Your task to perform on an android device: Search for the best vacuum on Amazon. Image 0: 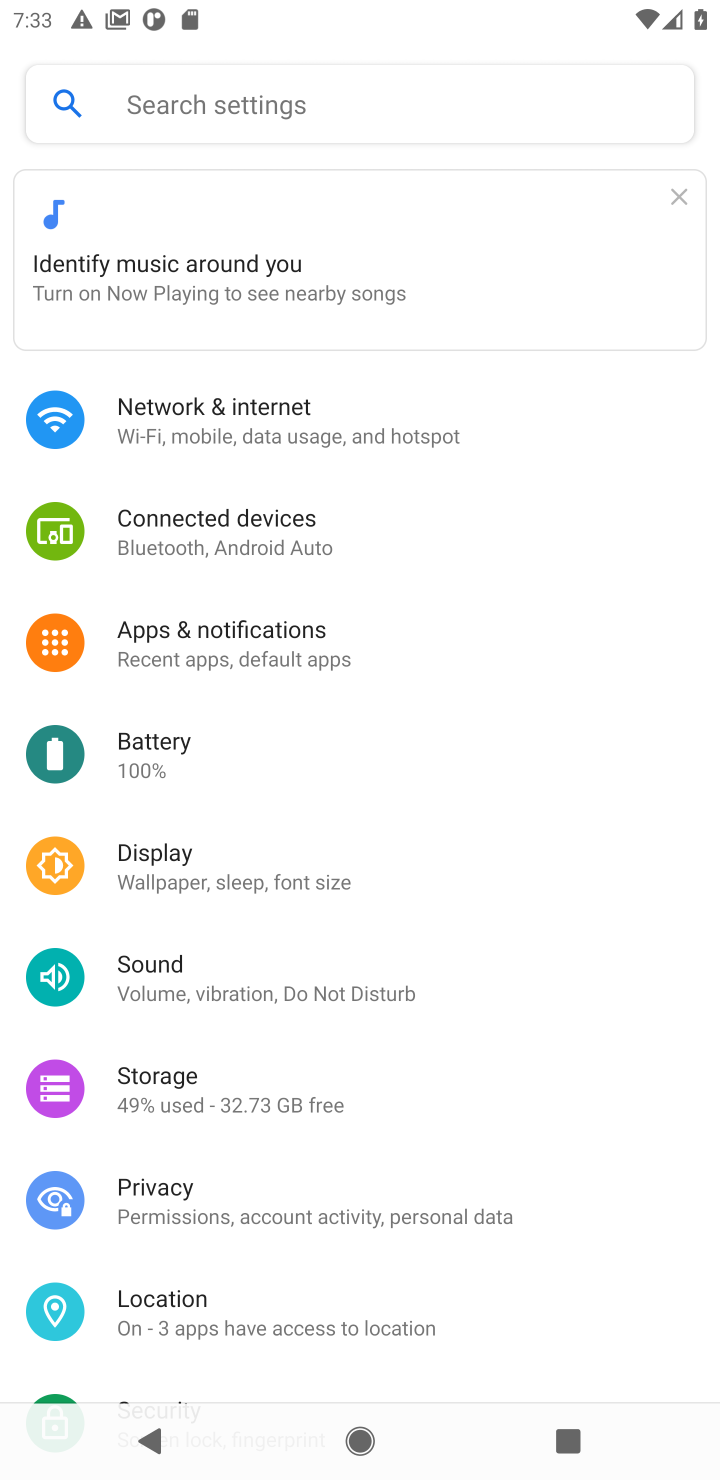
Step 0: press home button
Your task to perform on an android device: Search for the best vacuum on Amazon. Image 1: 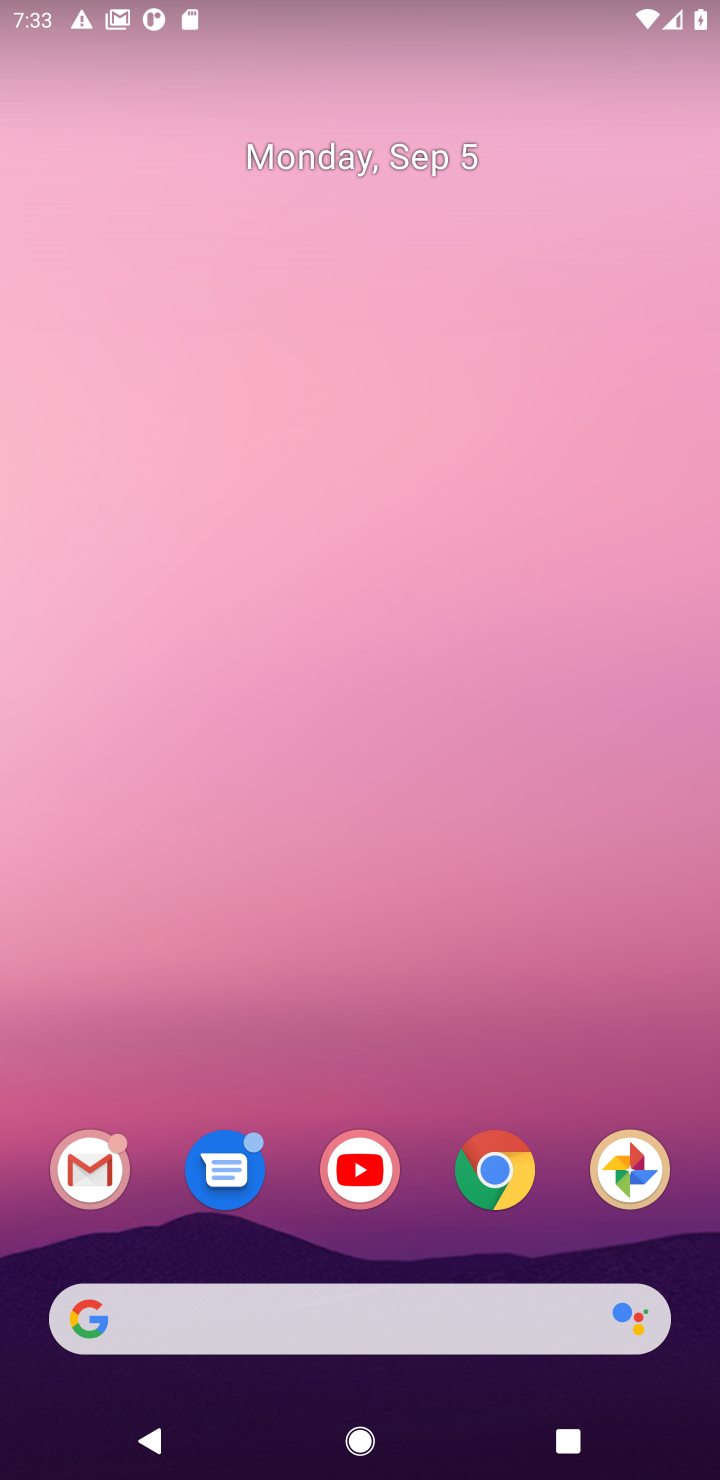
Step 1: click (507, 1195)
Your task to perform on an android device: Search for the best vacuum on Amazon. Image 2: 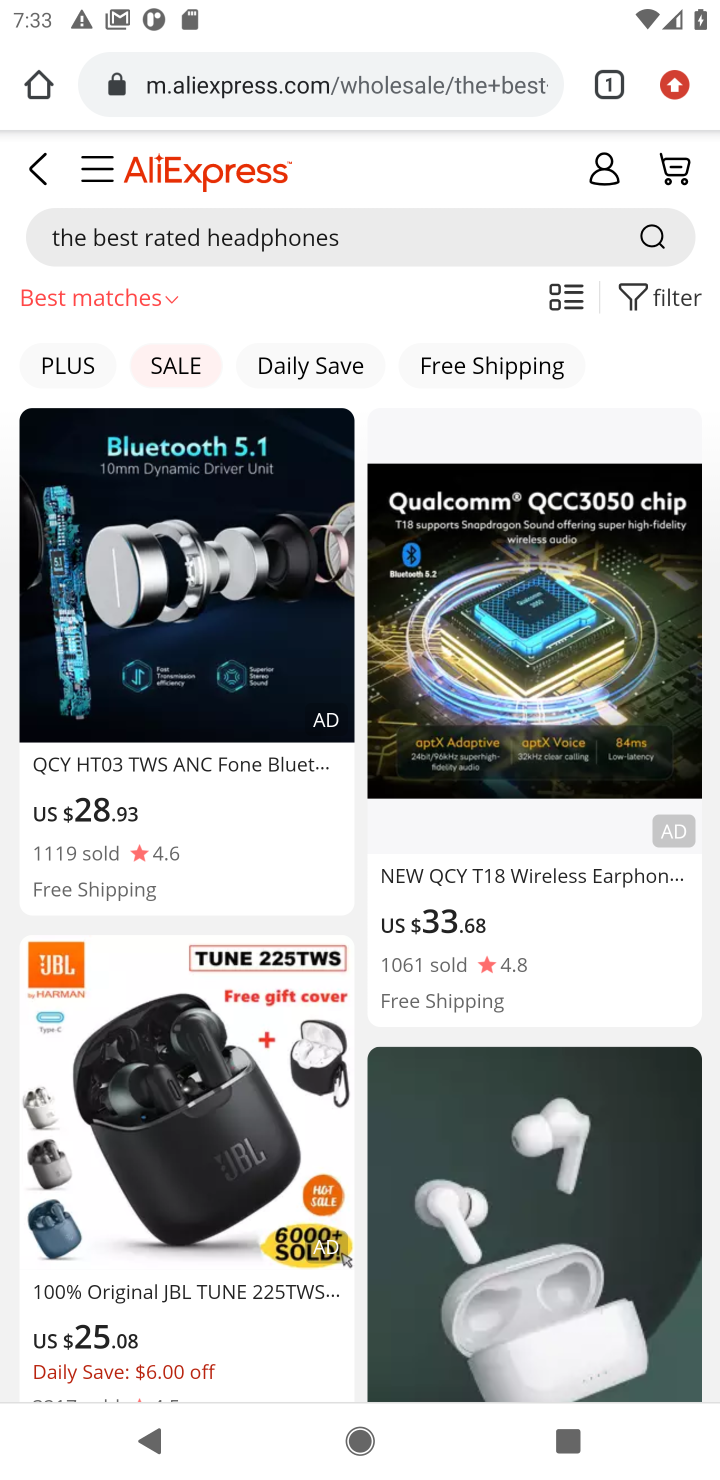
Step 2: click (309, 85)
Your task to perform on an android device: Search for the best vacuum on Amazon. Image 3: 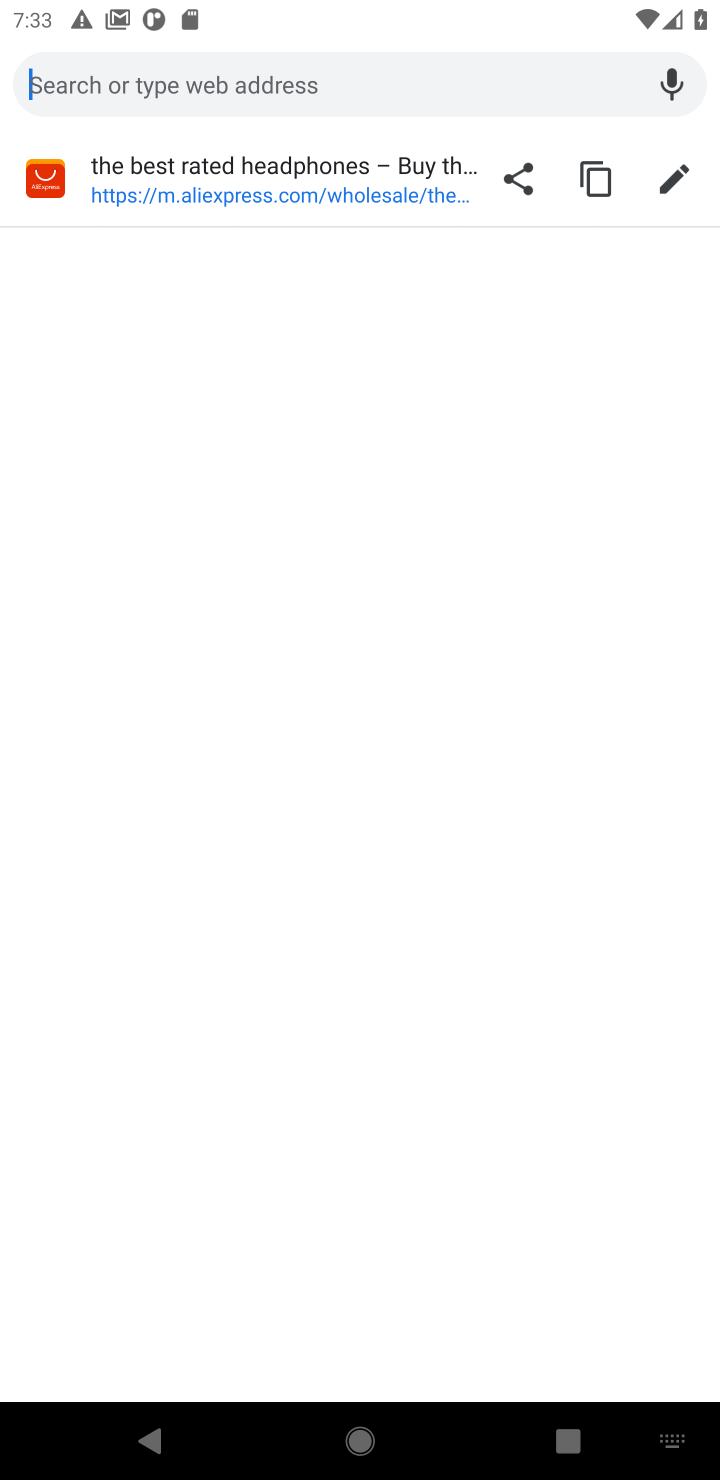
Step 3: type "Amazon"
Your task to perform on an android device: Search for the best vacuum on Amazon. Image 4: 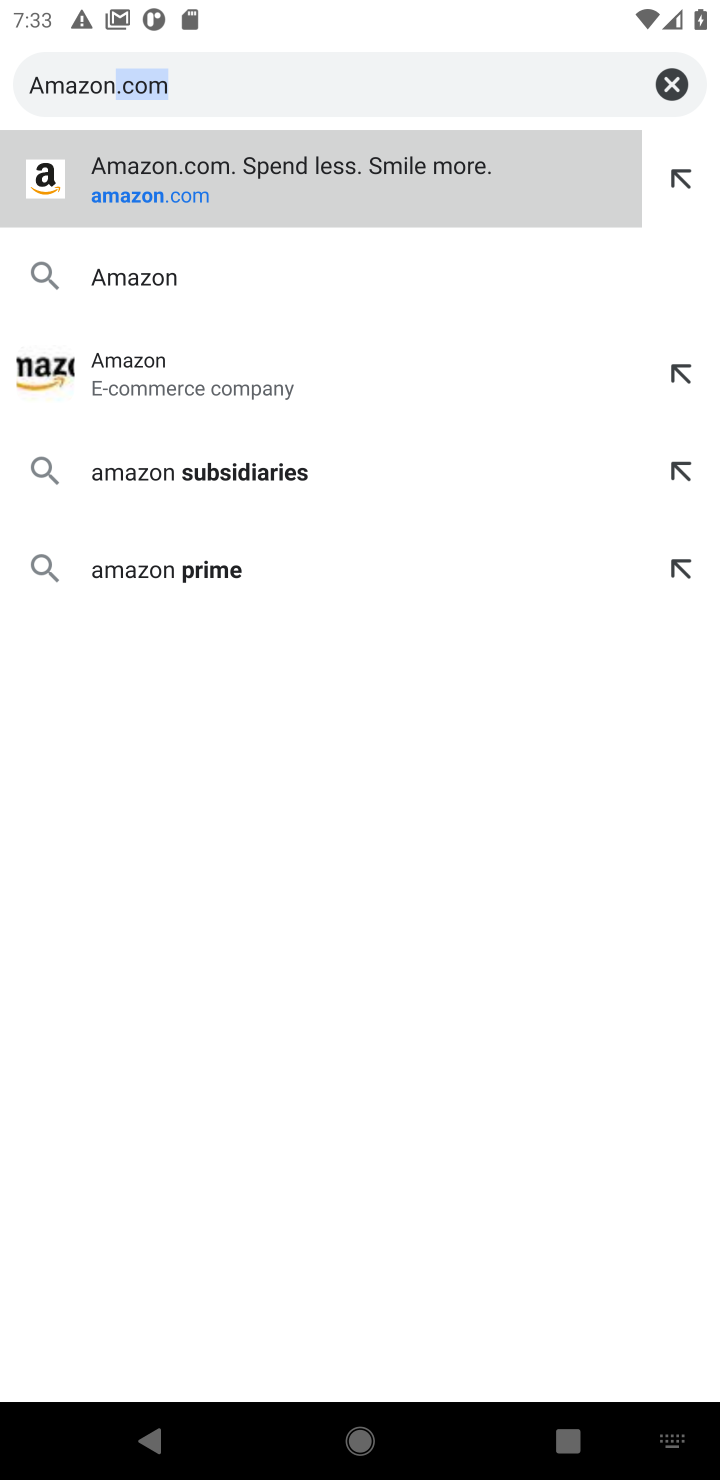
Step 4: click (249, 89)
Your task to perform on an android device: Search for the best vacuum on Amazon. Image 5: 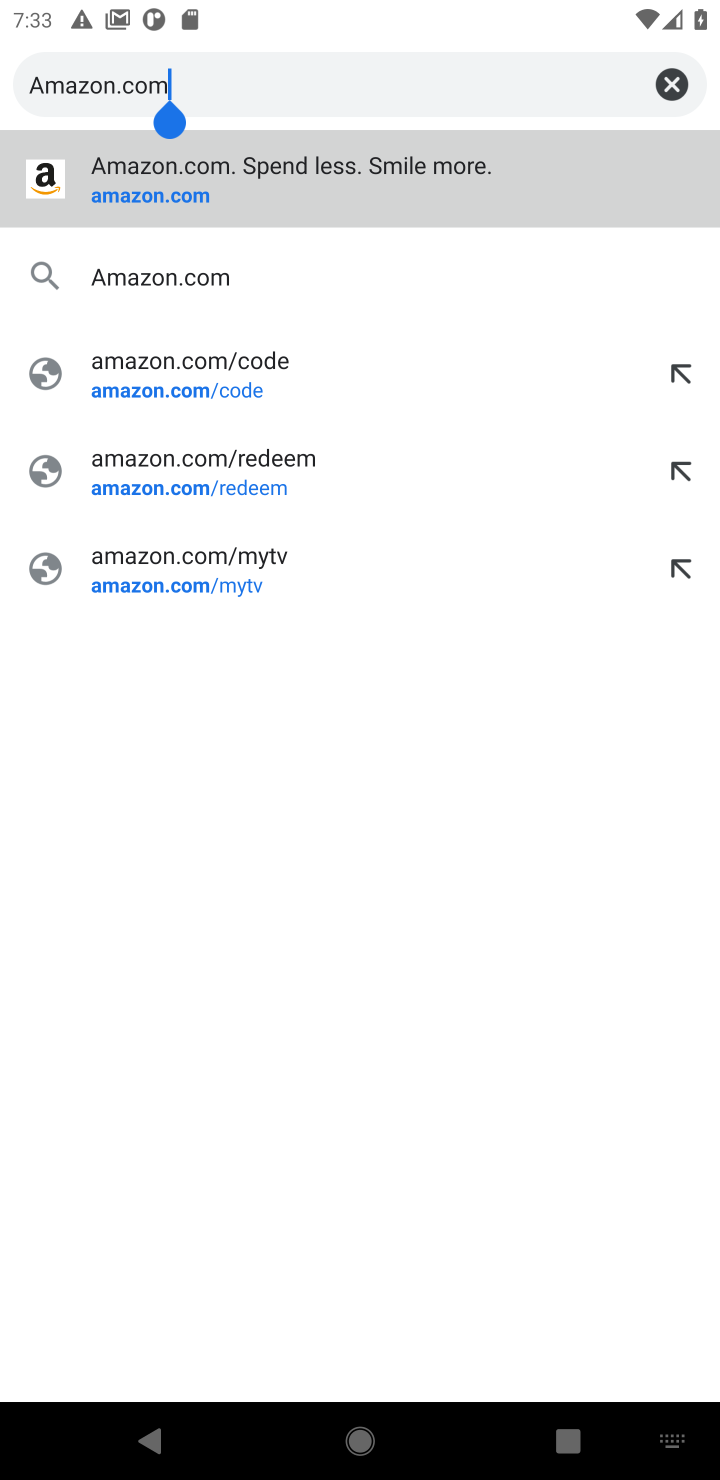
Step 5: click (225, 165)
Your task to perform on an android device: Search for the best vacuum on Amazon. Image 6: 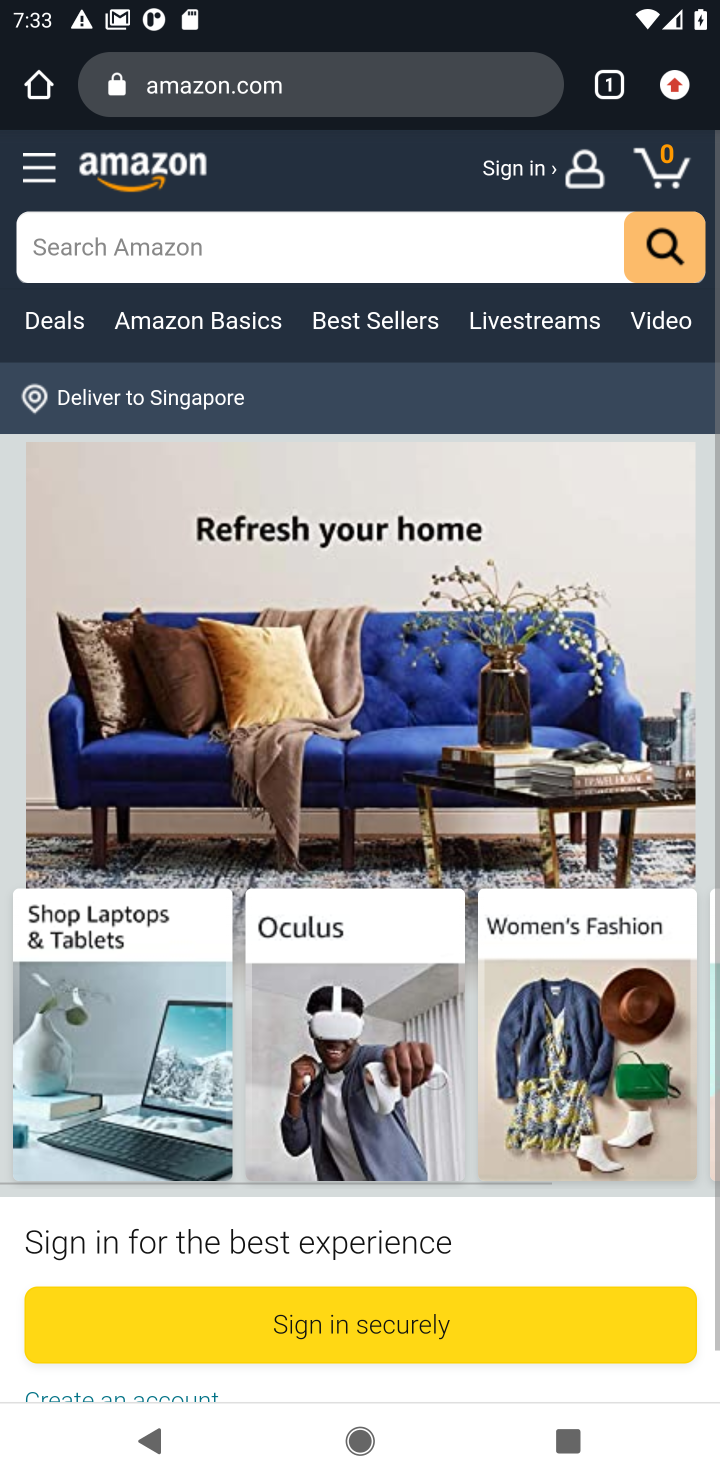
Step 6: click (274, 241)
Your task to perform on an android device: Search for the best vacuum on Amazon. Image 7: 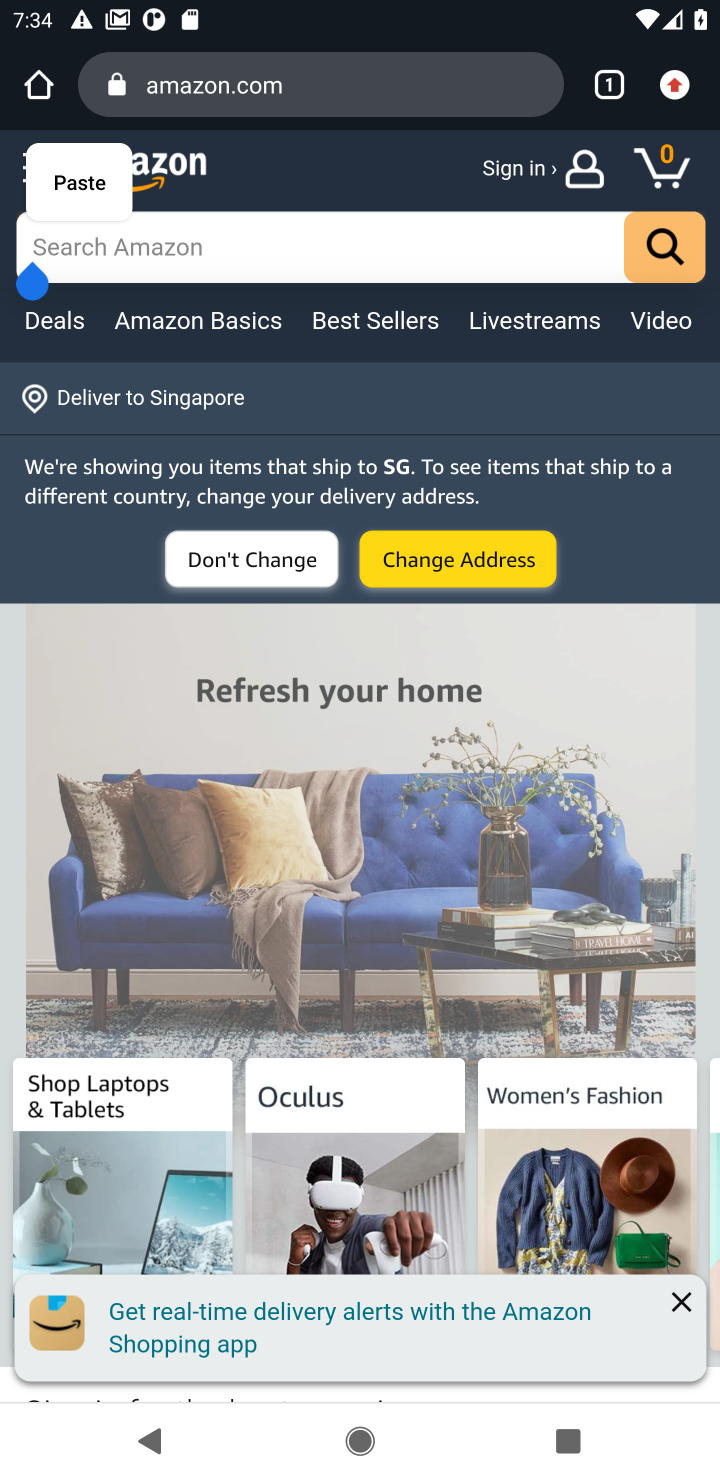
Step 7: type "the best vacuum"
Your task to perform on an android device: Search for the best vacuum on Amazon. Image 8: 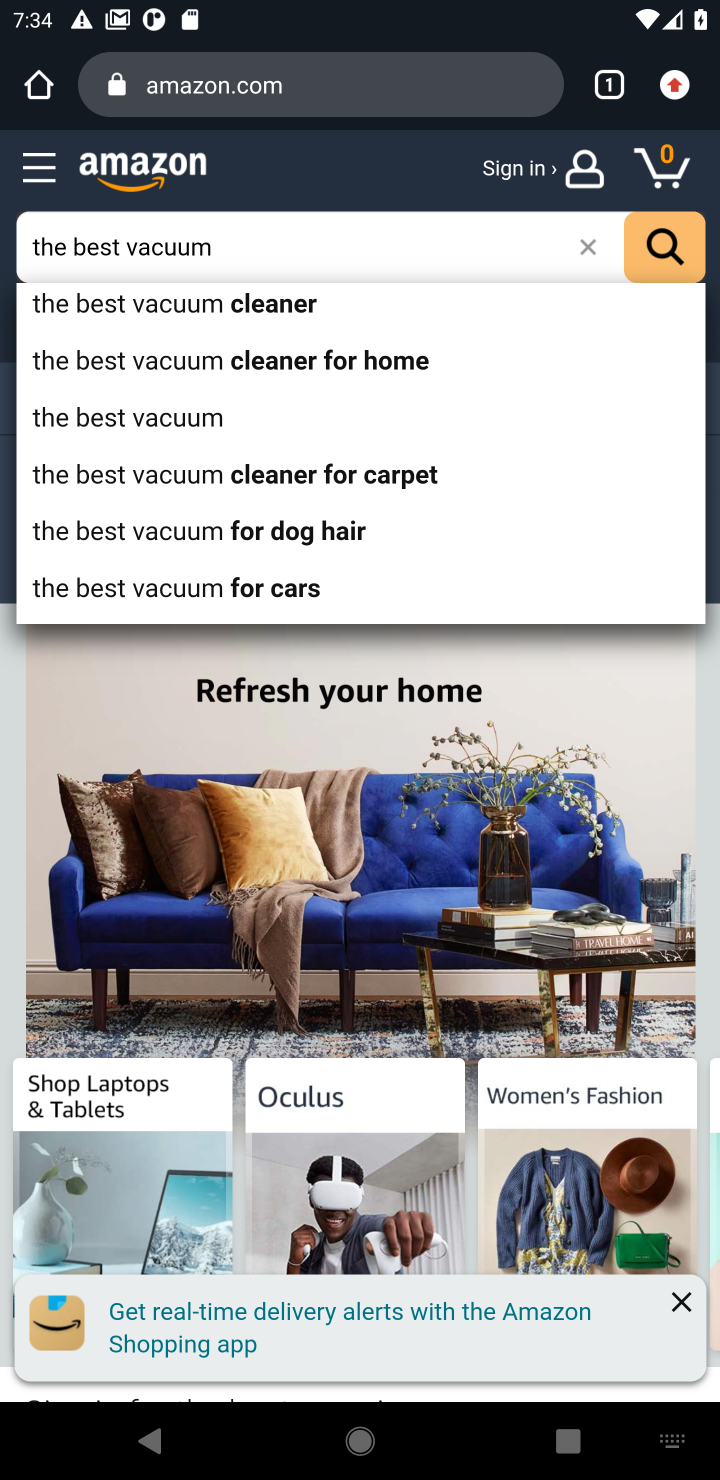
Step 8: click (667, 263)
Your task to perform on an android device: Search for the best vacuum on Amazon. Image 9: 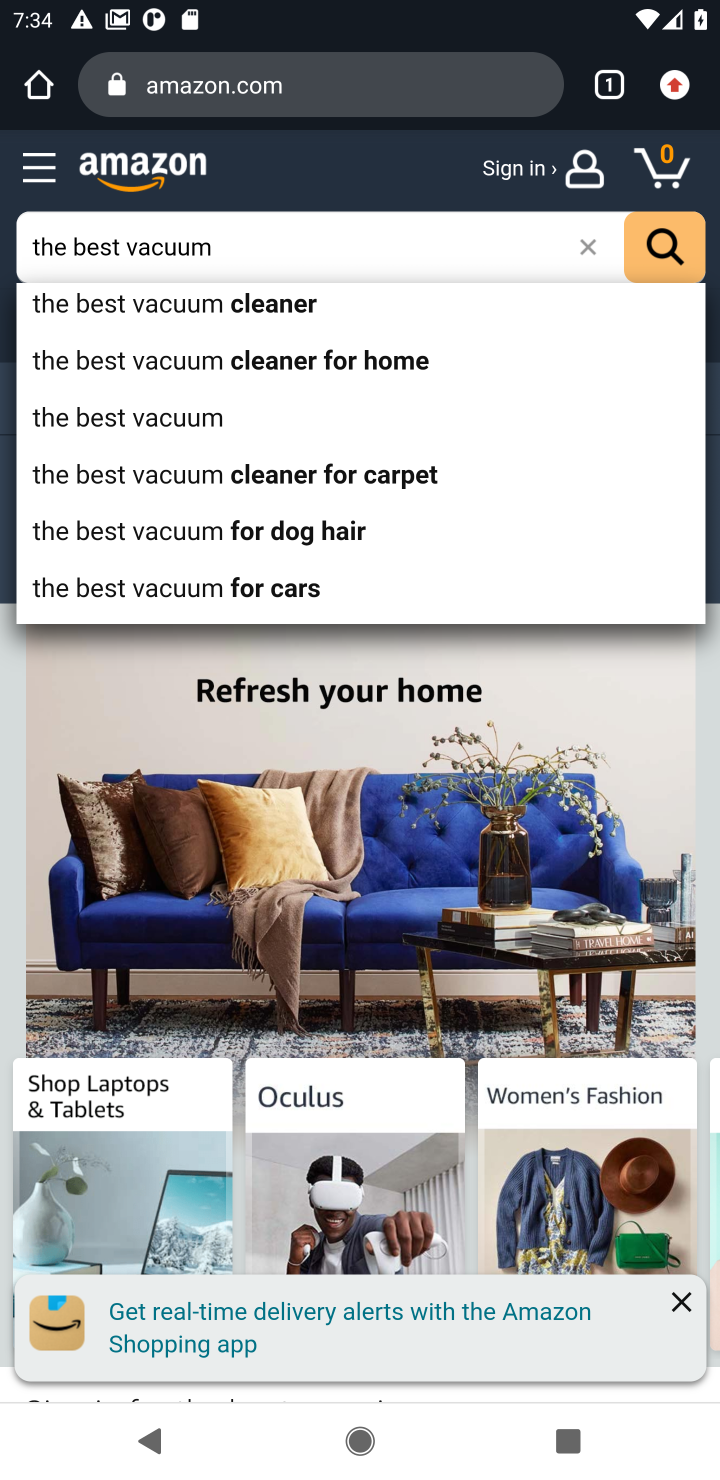
Step 9: click (659, 247)
Your task to perform on an android device: Search for the best vacuum on Amazon. Image 10: 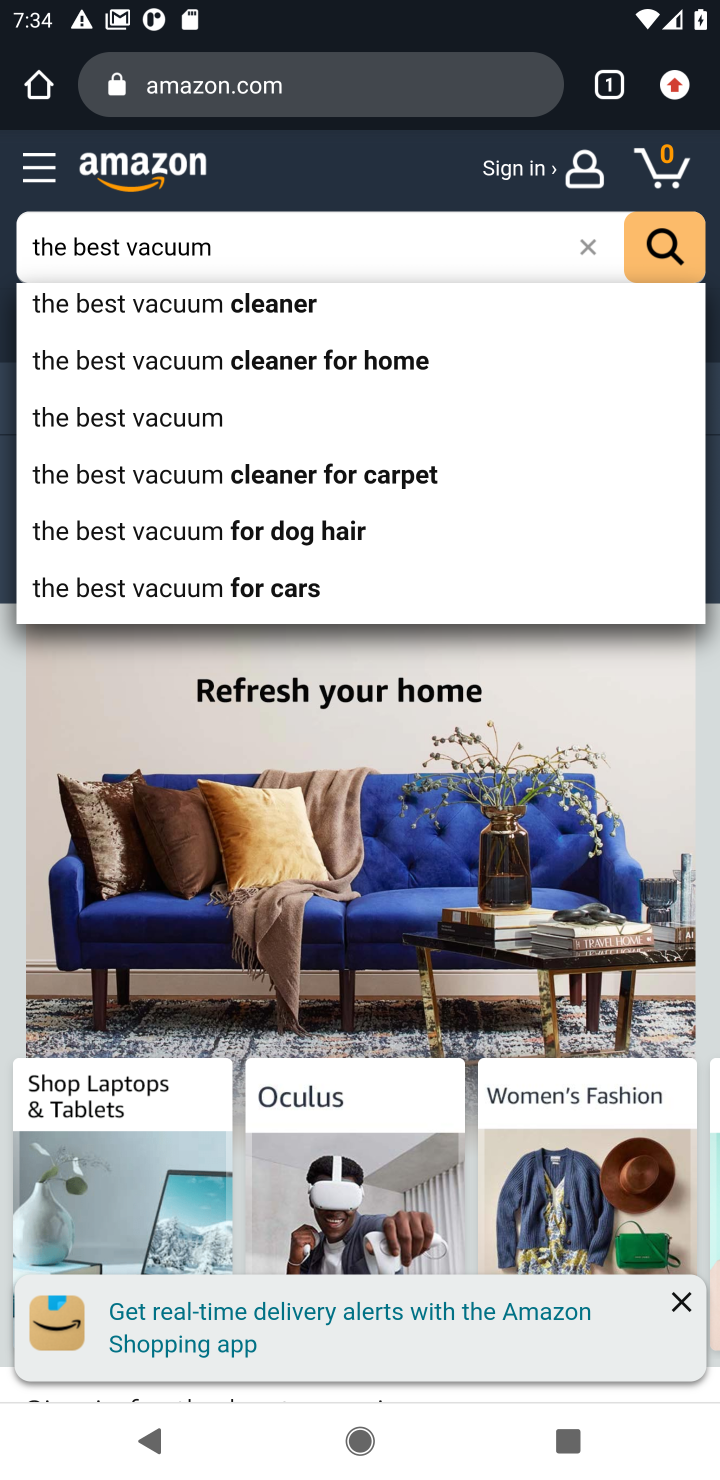
Step 10: click (657, 251)
Your task to perform on an android device: Search for the best vacuum on Amazon. Image 11: 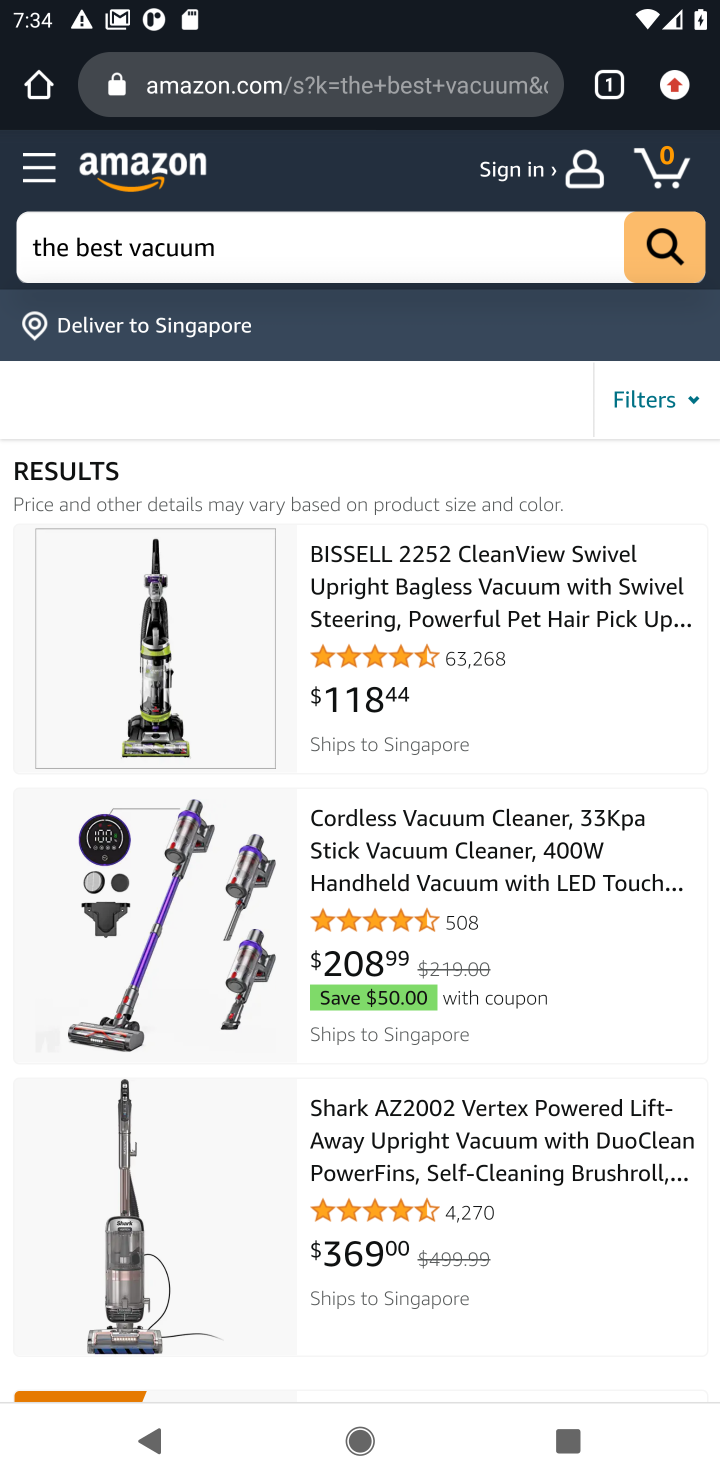
Step 11: task complete